Your task to perform on an android device: turn off sleep mode Image 0: 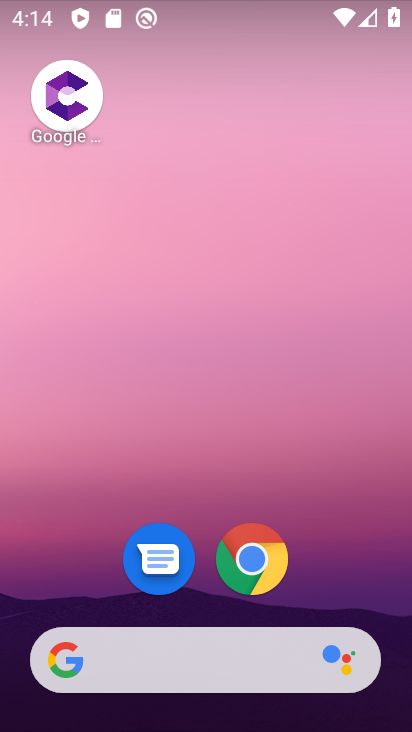
Step 0: drag from (186, 618) to (250, 9)
Your task to perform on an android device: turn off sleep mode Image 1: 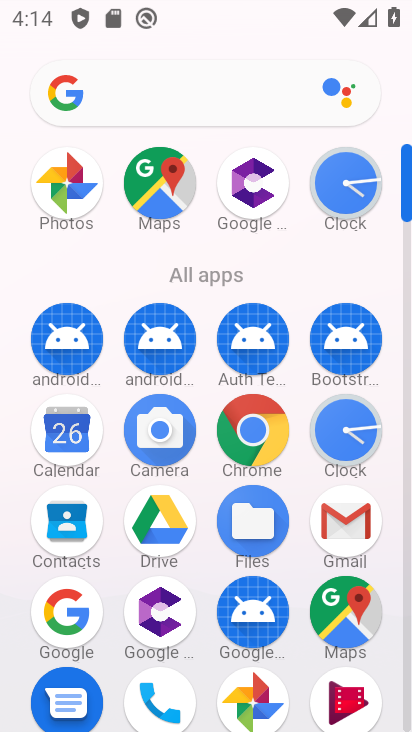
Step 1: drag from (183, 604) to (232, 12)
Your task to perform on an android device: turn off sleep mode Image 2: 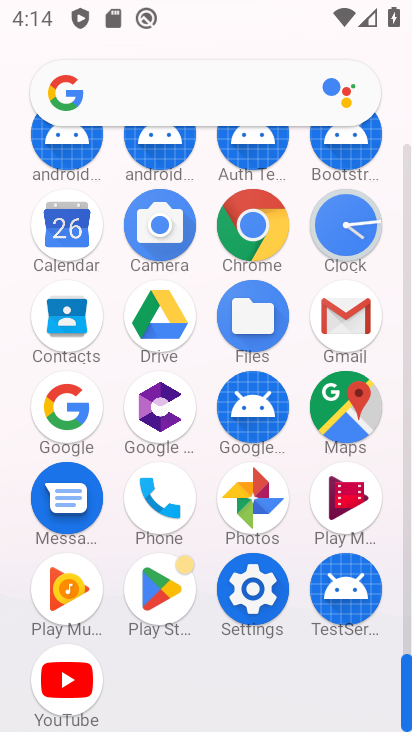
Step 2: click (257, 600)
Your task to perform on an android device: turn off sleep mode Image 3: 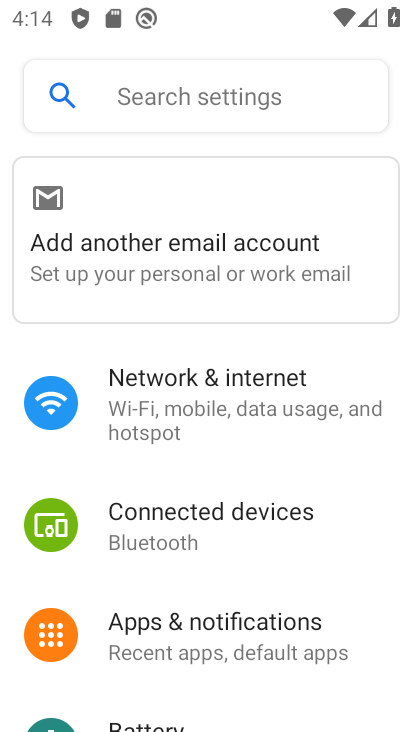
Step 3: click (193, 101)
Your task to perform on an android device: turn off sleep mode Image 4: 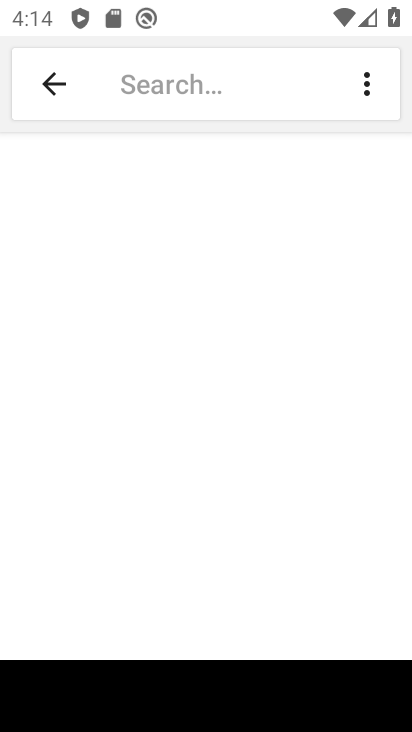
Step 4: type "sleep mode"
Your task to perform on an android device: turn off sleep mode Image 5: 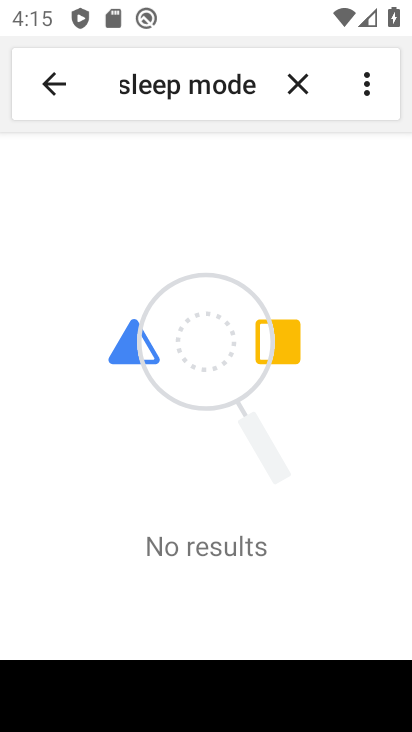
Step 5: task complete